Your task to perform on an android device: Open Chrome and go to settings Image 0: 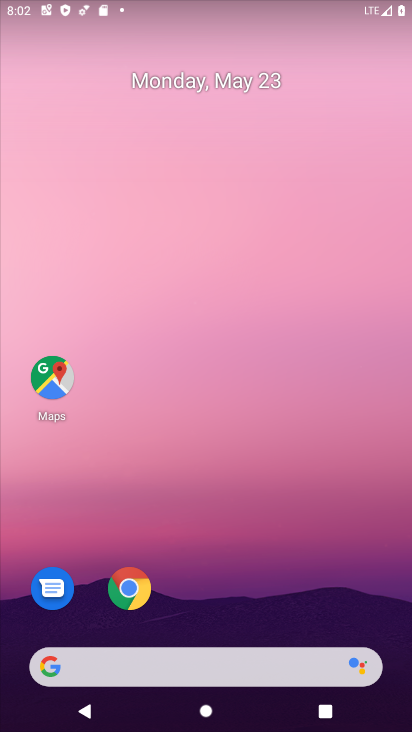
Step 0: click (120, 585)
Your task to perform on an android device: Open Chrome and go to settings Image 1: 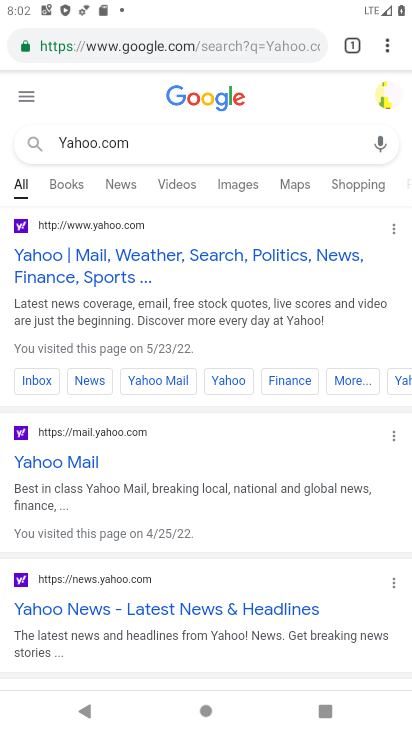
Step 1: click (385, 52)
Your task to perform on an android device: Open Chrome and go to settings Image 2: 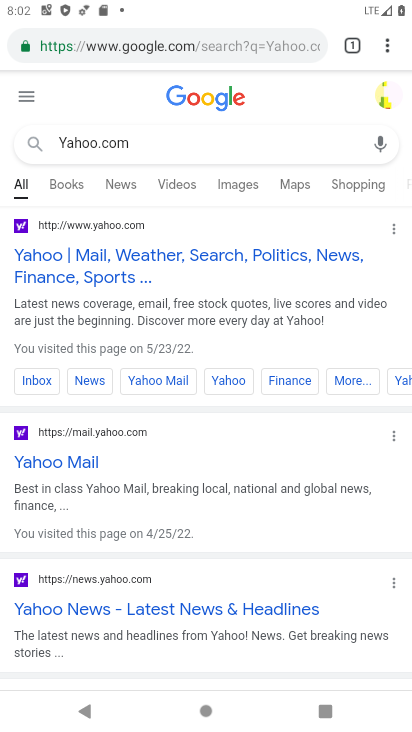
Step 2: click (386, 41)
Your task to perform on an android device: Open Chrome and go to settings Image 3: 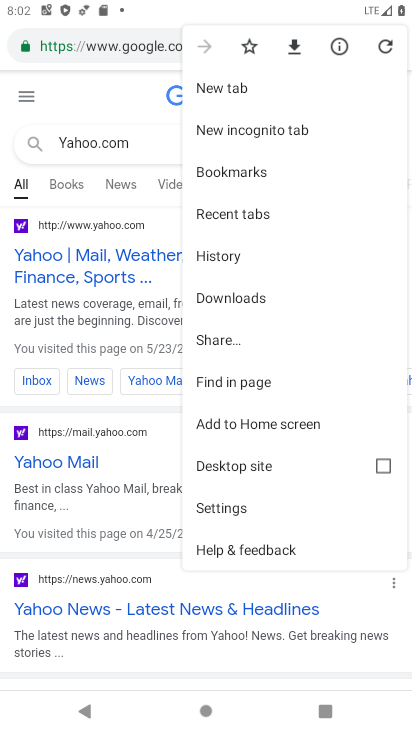
Step 3: click (227, 513)
Your task to perform on an android device: Open Chrome and go to settings Image 4: 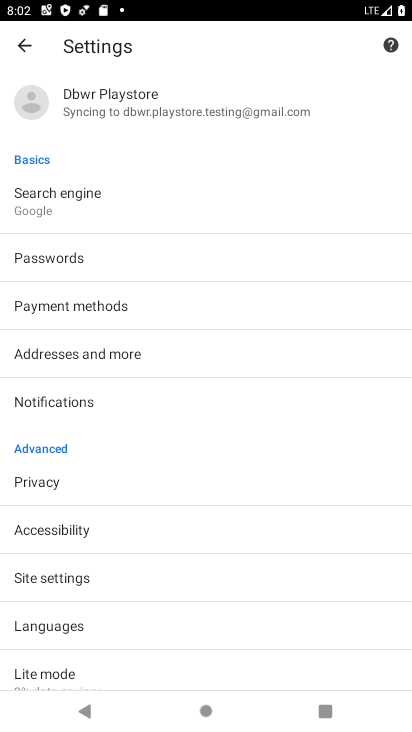
Step 4: task complete